Your task to perform on an android device: What is the news today? Image 0: 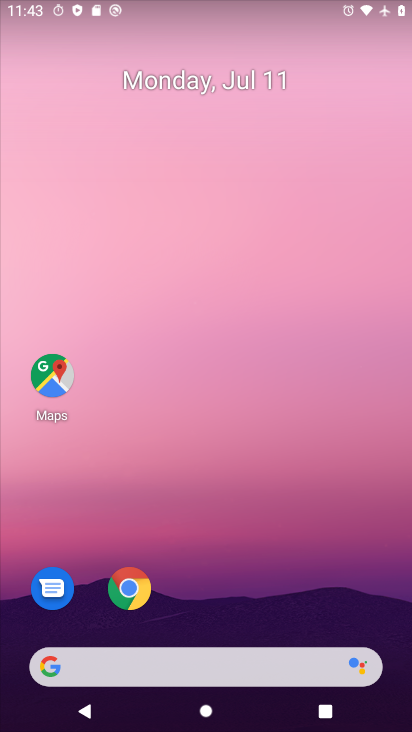
Step 0: click (187, 658)
Your task to perform on an android device: What is the news today? Image 1: 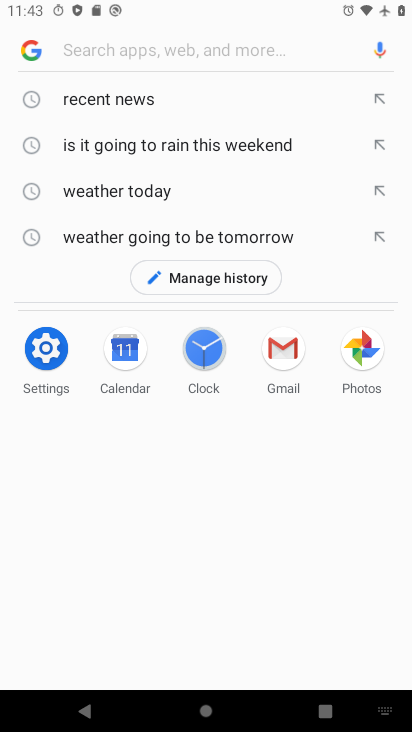
Step 1: click (131, 95)
Your task to perform on an android device: What is the news today? Image 2: 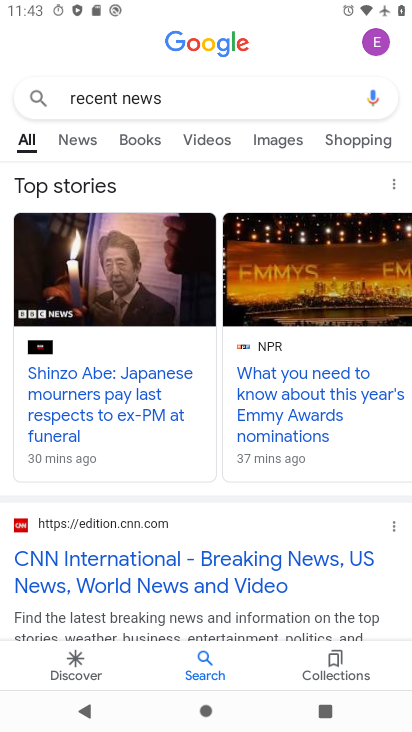
Step 2: click (83, 142)
Your task to perform on an android device: What is the news today? Image 3: 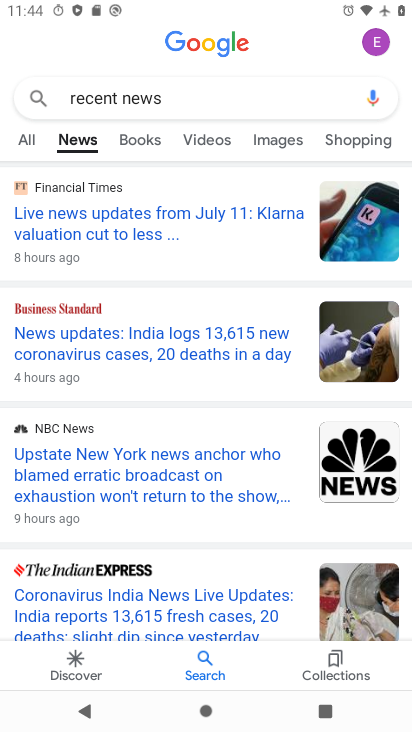
Step 3: task complete